Your task to perform on an android device: open app "Google Find My Device" (install if not already installed) Image 0: 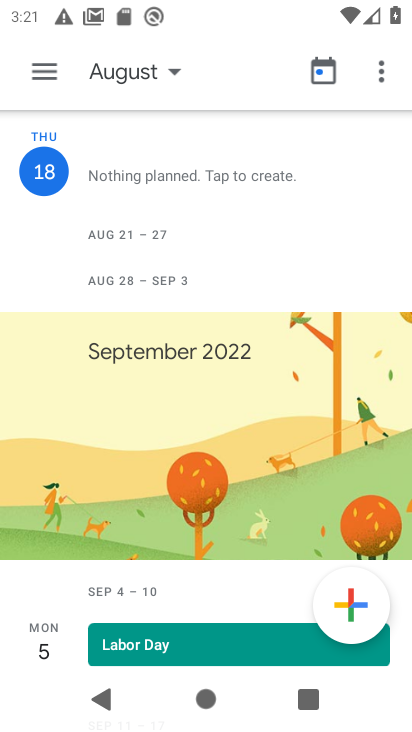
Step 0: press back button
Your task to perform on an android device: open app "Google Find My Device" (install if not already installed) Image 1: 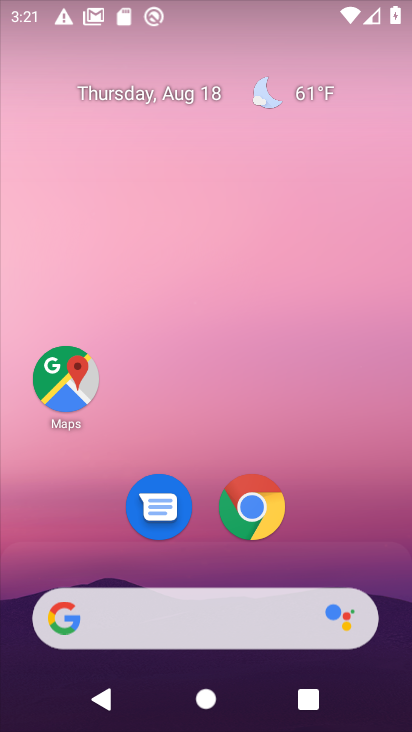
Step 1: drag from (213, 577) to (280, 59)
Your task to perform on an android device: open app "Google Find My Device" (install if not already installed) Image 2: 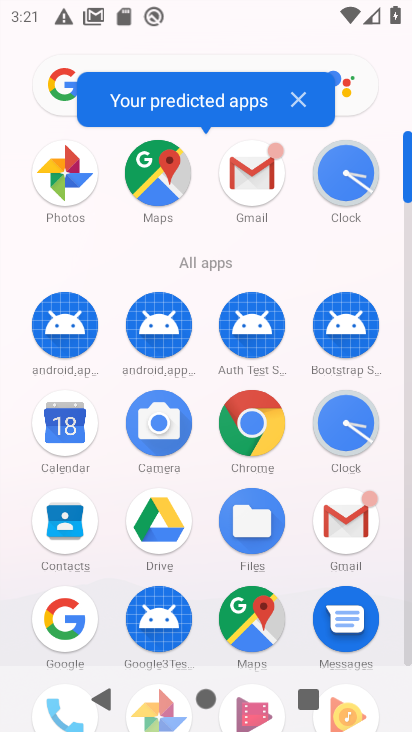
Step 2: drag from (254, 588) to (320, 44)
Your task to perform on an android device: open app "Google Find My Device" (install if not already installed) Image 3: 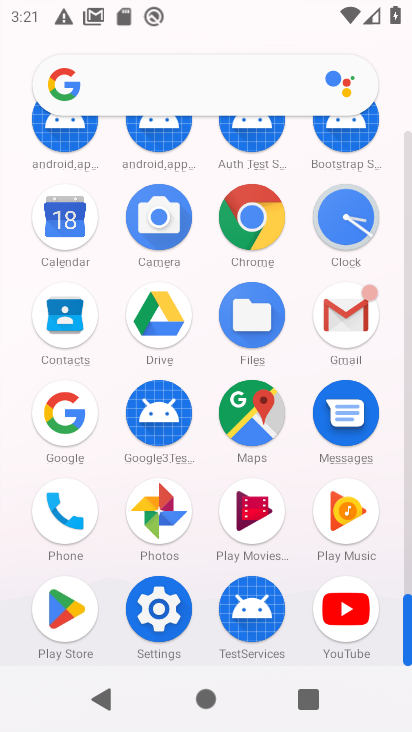
Step 3: click (76, 611)
Your task to perform on an android device: open app "Google Find My Device" (install if not already installed) Image 4: 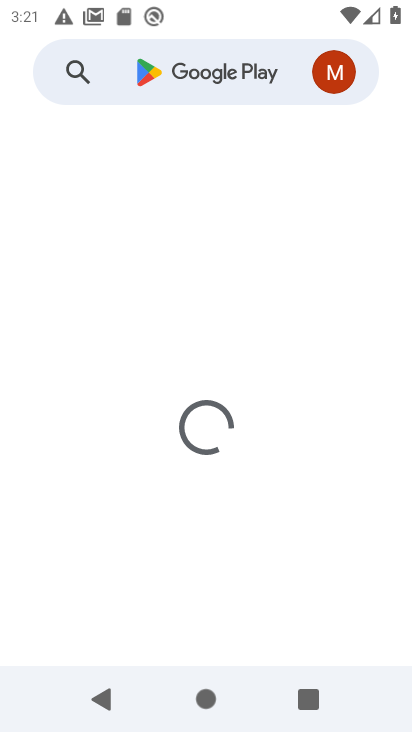
Step 4: click (204, 73)
Your task to perform on an android device: open app "Google Find My Device" (install if not already installed) Image 5: 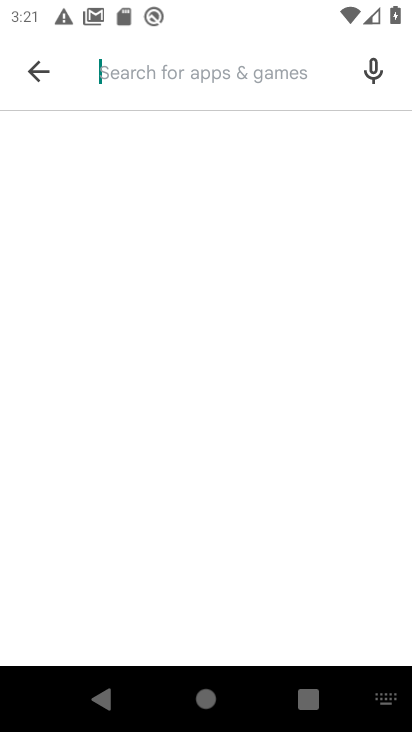
Step 5: click (180, 62)
Your task to perform on an android device: open app "Google Find My Device" (install if not already installed) Image 6: 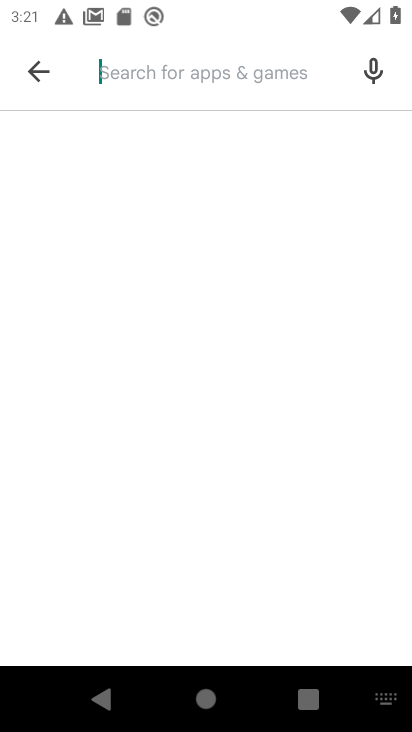
Step 6: type "Google Find My Device"
Your task to perform on an android device: open app "Google Find My Device" (install if not already installed) Image 7: 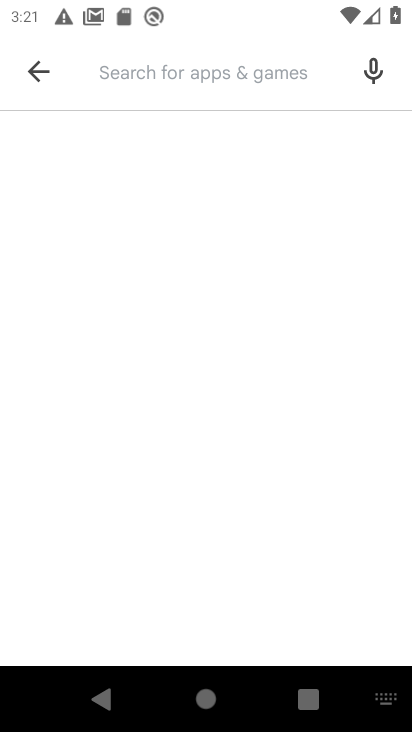
Step 7: click (124, 445)
Your task to perform on an android device: open app "Google Find My Device" (install if not already installed) Image 8: 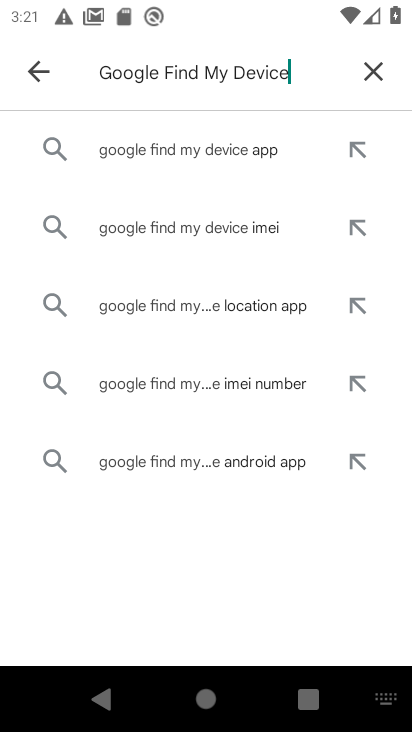
Step 8: click (175, 144)
Your task to perform on an android device: open app "Google Find My Device" (install if not already installed) Image 9: 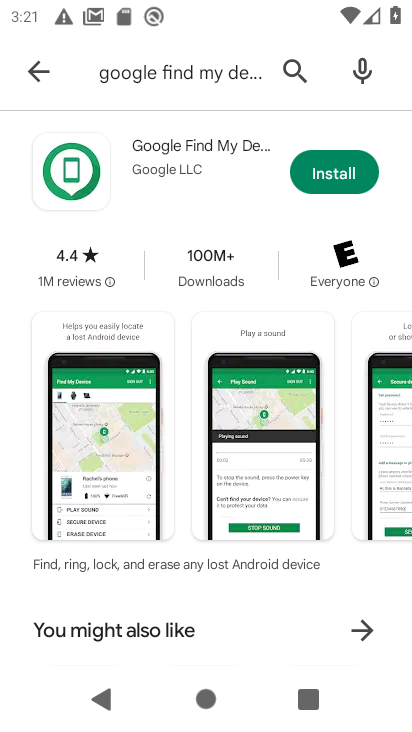
Step 9: click (336, 164)
Your task to perform on an android device: open app "Google Find My Device" (install if not already installed) Image 10: 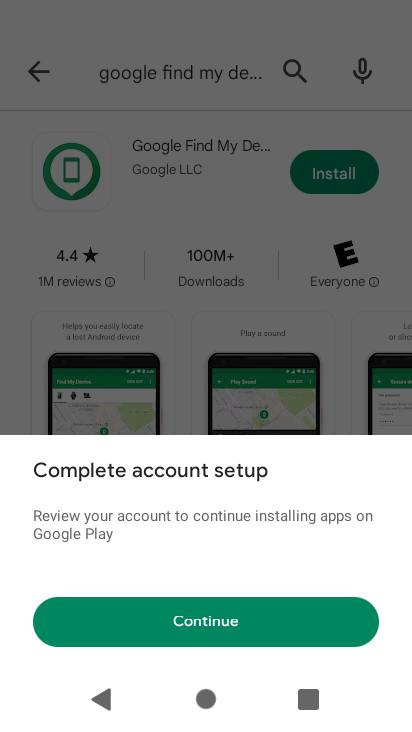
Step 10: click (124, 633)
Your task to perform on an android device: open app "Google Find My Device" (install if not already installed) Image 11: 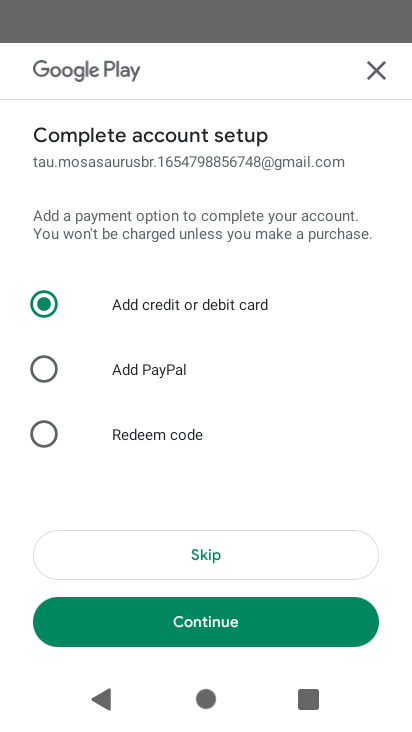
Step 11: click (232, 562)
Your task to perform on an android device: open app "Google Find My Device" (install if not already installed) Image 12: 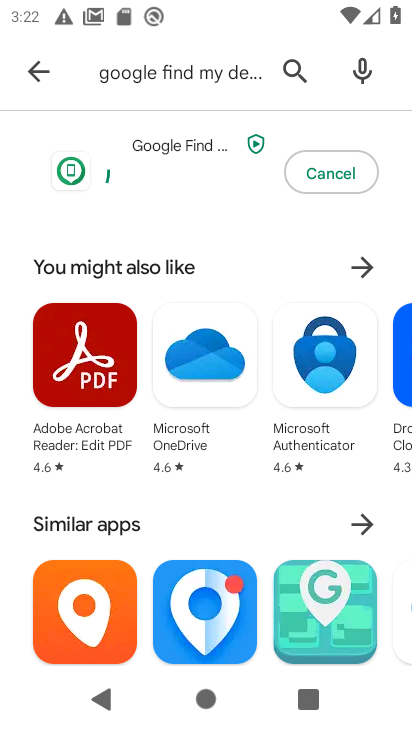
Step 12: click (42, 78)
Your task to perform on an android device: open app "Google Find My Device" (install if not already installed) Image 13: 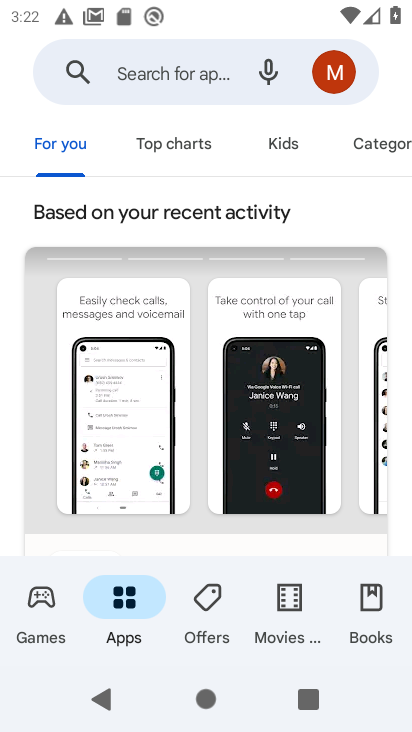
Step 13: click (170, 72)
Your task to perform on an android device: open app "Google Find My Device" (install if not already installed) Image 14: 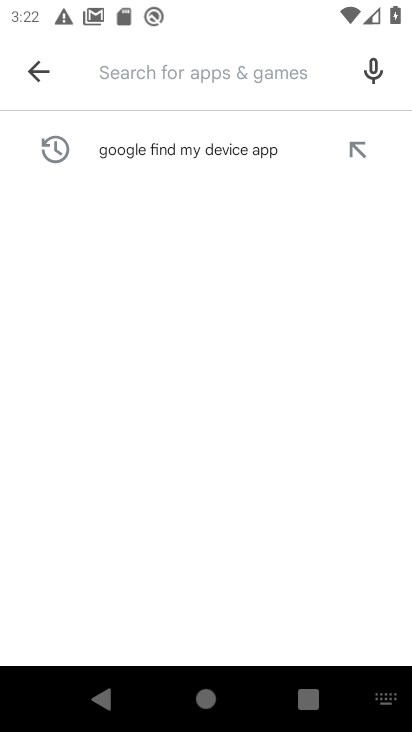
Step 14: click (164, 157)
Your task to perform on an android device: open app "Google Find My Device" (install if not already installed) Image 15: 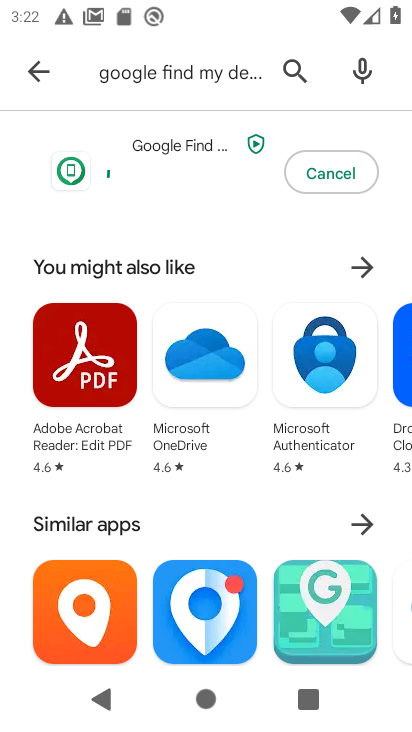
Step 15: click (201, 173)
Your task to perform on an android device: open app "Google Find My Device" (install if not already installed) Image 16: 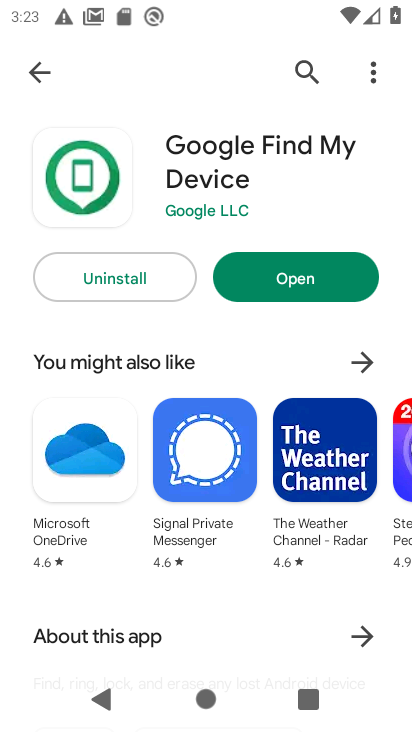
Step 16: click (305, 273)
Your task to perform on an android device: open app "Google Find My Device" (install if not already installed) Image 17: 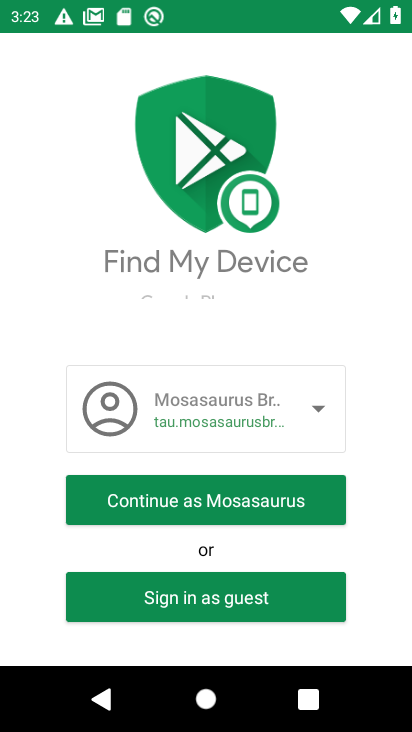
Step 17: task complete